Your task to perform on an android device: Open sound settings Image 0: 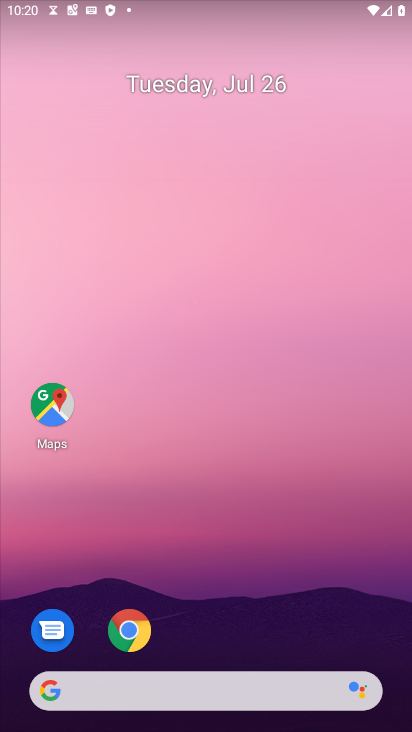
Step 0: drag from (210, 499) to (175, 12)
Your task to perform on an android device: Open sound settings Image 1: 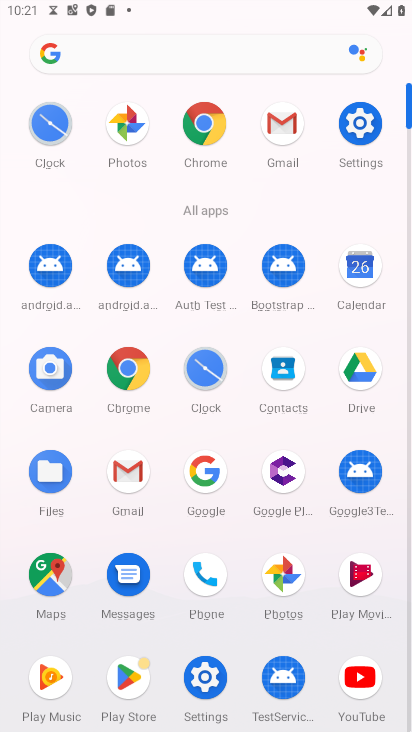
Step 1: click (359, 111)
Your task to perform on an android device: Open sound settings Image 2: 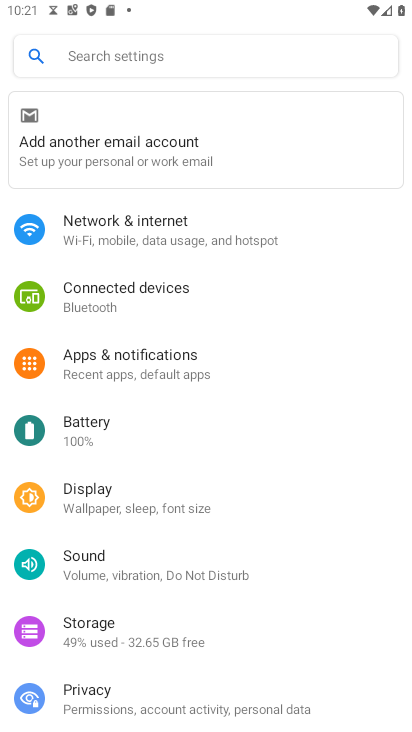
Step 2: click (106, 560)
Your task to perform on an android device: Open sound settings Image 3: 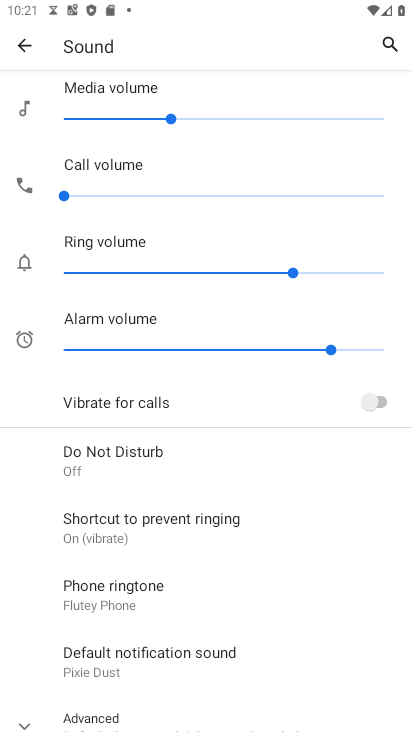
Step 3: task complete